Your task to perform on an android device: open chrome privacy settings Image 0: 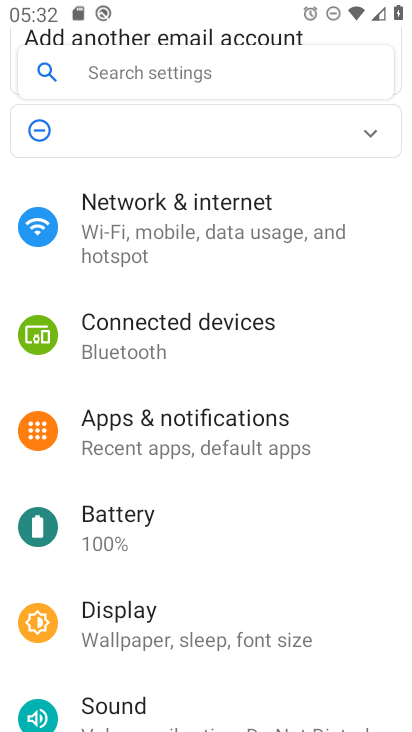
Step 0: press home button
Your task to perform on an android device: open chrome privacy settings Image 1: 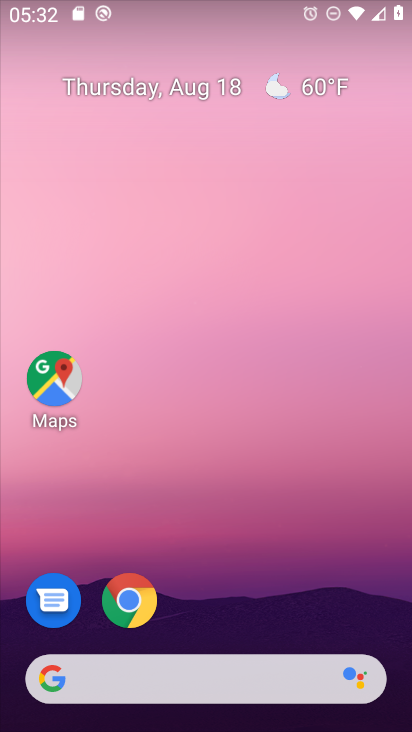
Step 1: click (125, 609)
Your task to perform on an android device: open chrome privacy settings Image 2: 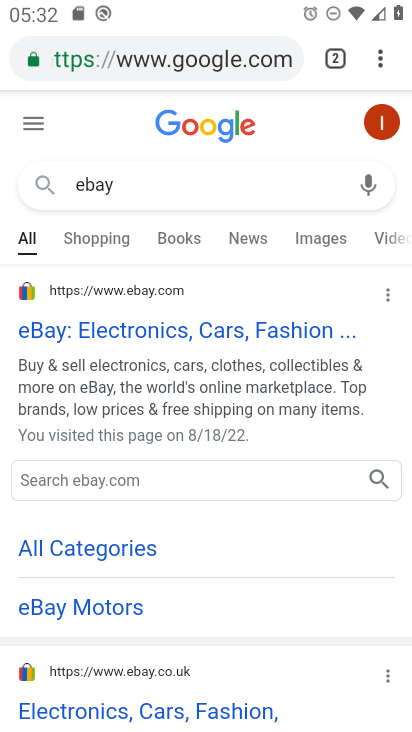
Step 2: drag from (380, 58) to (186, 630)
Your task to perform on an android device: open chrome privacy settings Image 3: 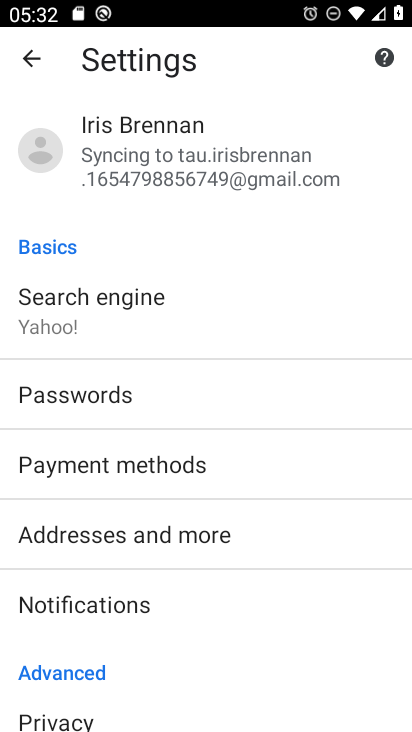
Step 3: click (53, 725)
Your task to perform on an android device: open chrome privacy settings Image 4: 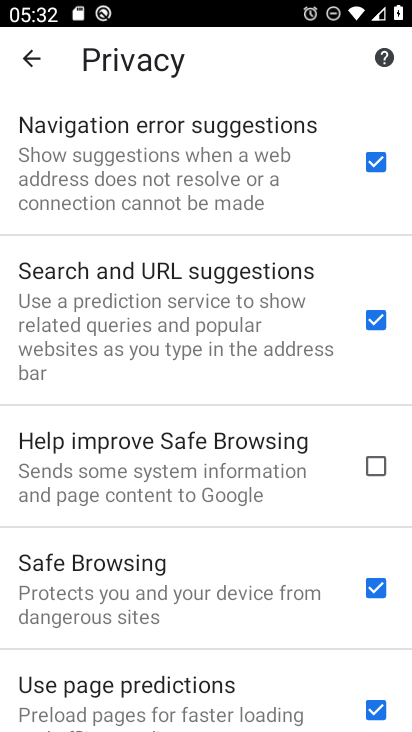
Step 4: task complete